Your task to perform on an android device: toggle sleep mode Image 0: 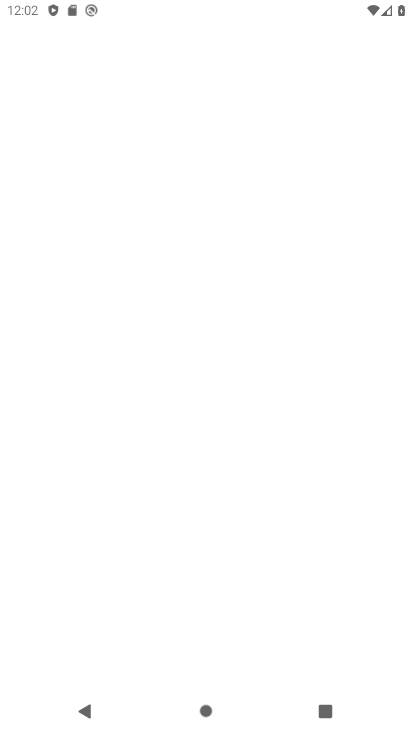
Step 0: press home button
Your task to perform on an android device: toggle sleep mode Image 1: 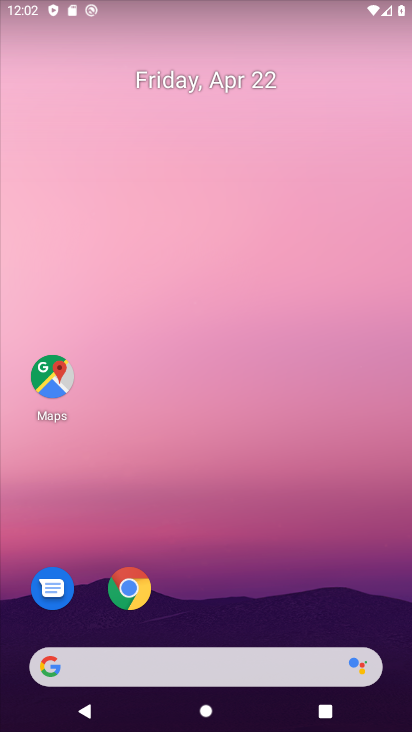
Step 1: drag from (254, 574) to (243, 129)
Your task to perform on an android device: toggle sleep mode Image 2: 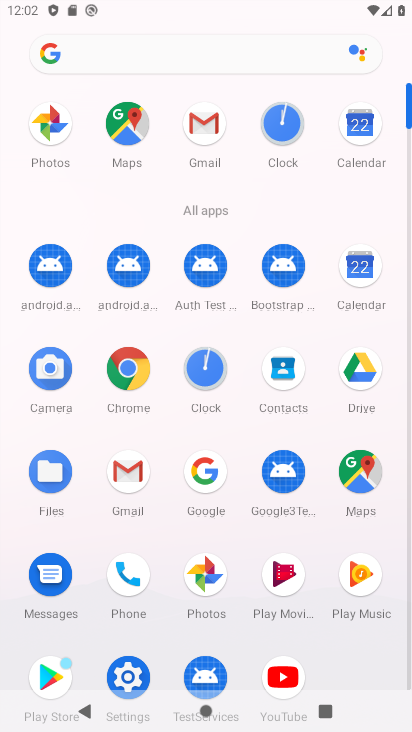
Step 2: click (121, 681)
Your task to perform on an android device: toggle sleep mode Image 3: 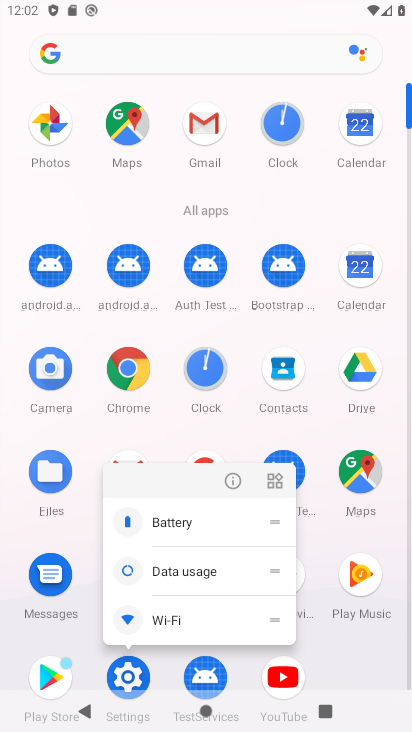
Step 3: click (128, 671)
Your task to perform on an android device: toggle sleep mode Image 4: 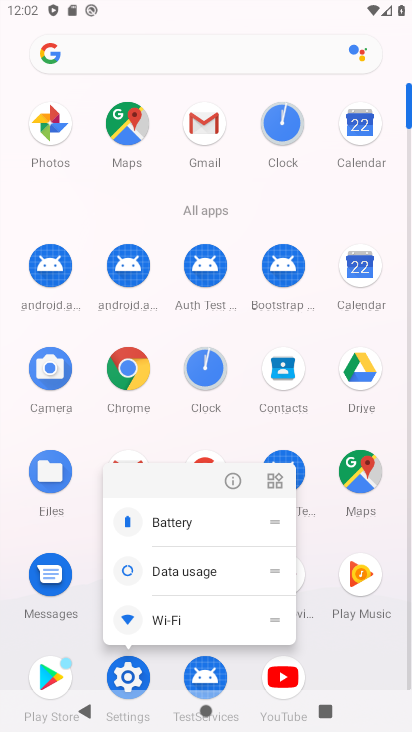
Step 4: click (128, 671)
Your task to perform on an android device: toggle sleep mode Image 5: 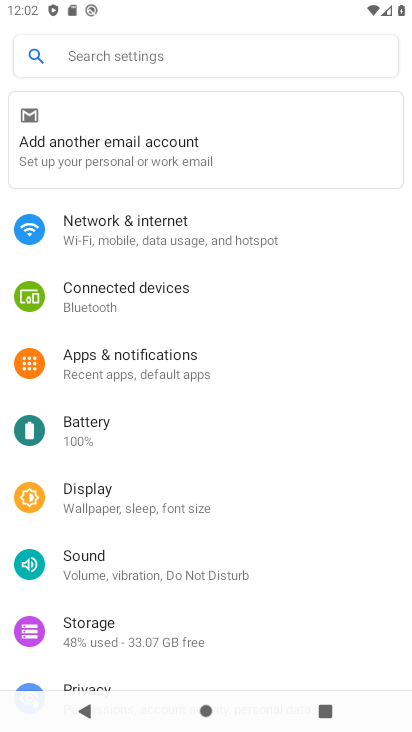
Step 5: click (172, 501)
Your task to perform on an android device: toggle sleep mode Image 6: 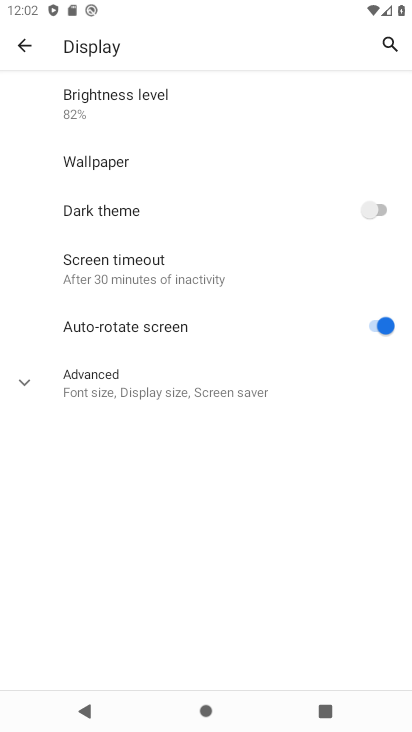
Step 6: click (197, 407)
Your task to perform on an android device: toggle sleep mode Image 7: 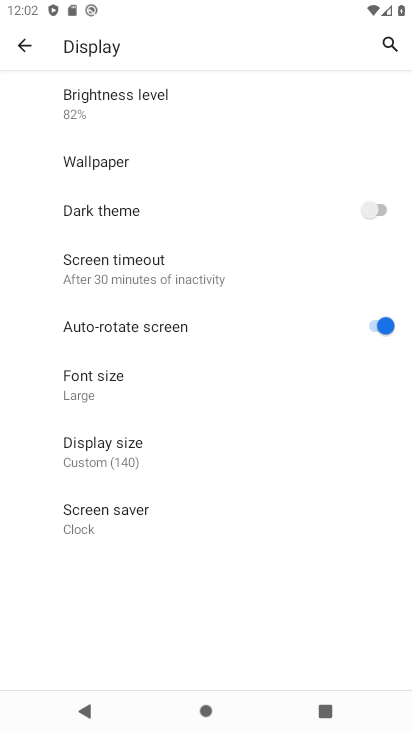
Step 7: task complete